Your task to perform on an android device: Open settings Image 0: 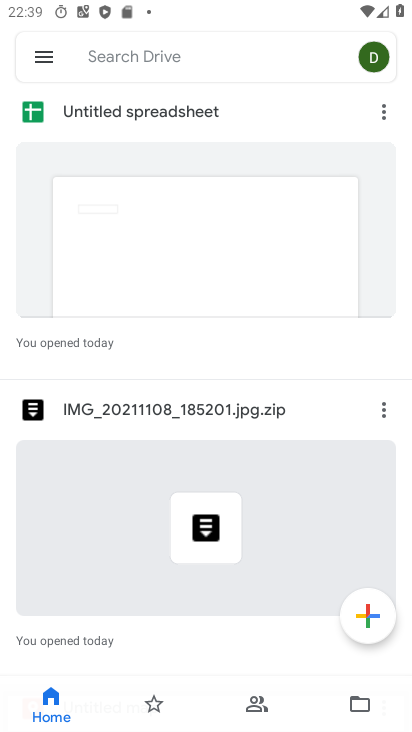
Step 0: press home button
Your task to perform on an android device: Open settings Image 1: 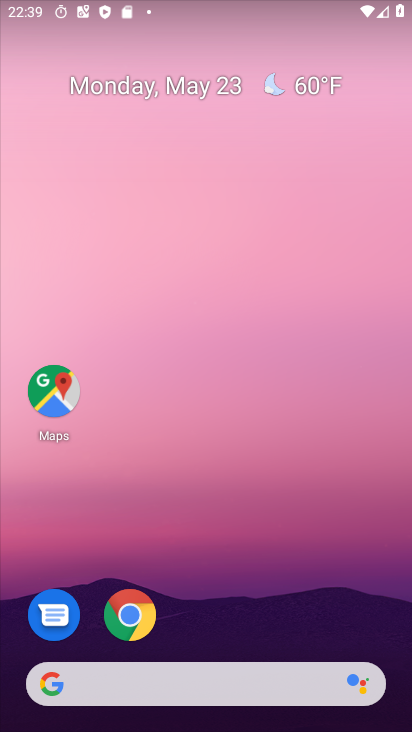
Step 1: drag from (208, 620) to (235, 128)
Your task to perform on an android device: Open settings Image 2: 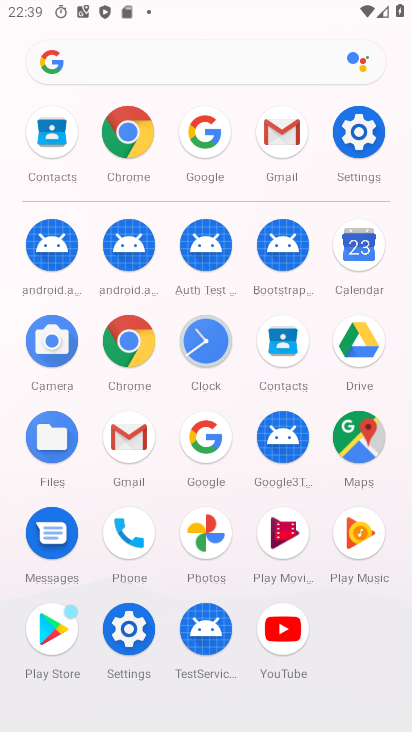
Step 2: click (359, 137)
Your task to perform on an android device: Open settings Image 3: 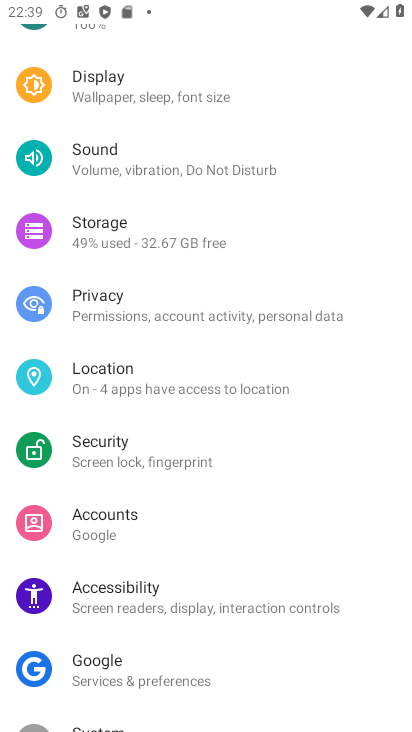
Step 3: task complete